Your task to perform on an android device: Add macbook pro to the cart on target, then select checkout. Image 0: 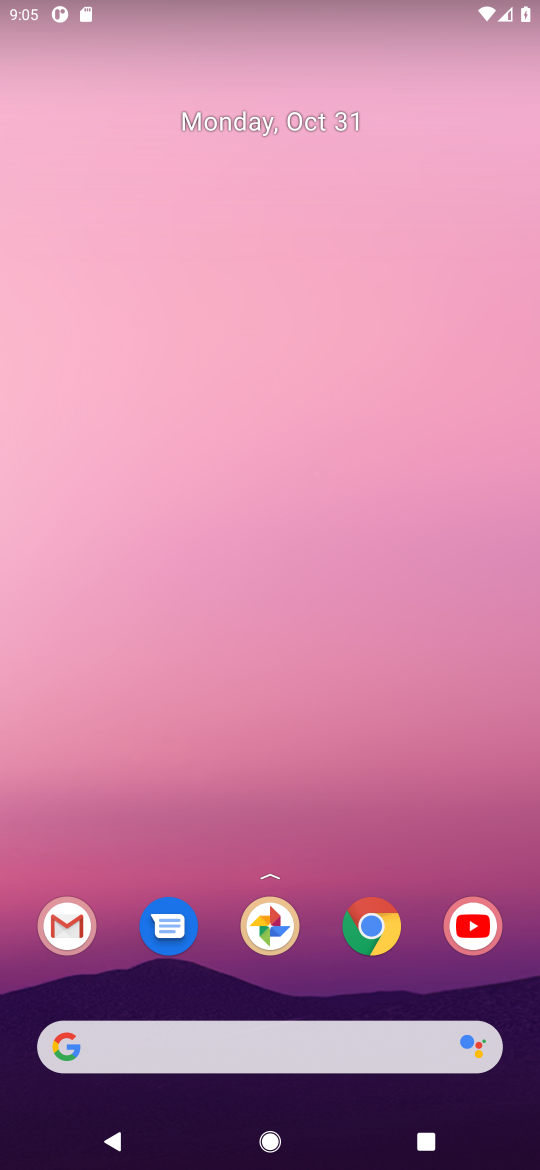
Step 0: click (374, 932)
Your task to perform on an android device: Add macbook pro to the cart on target, then select checkout. Image 1: 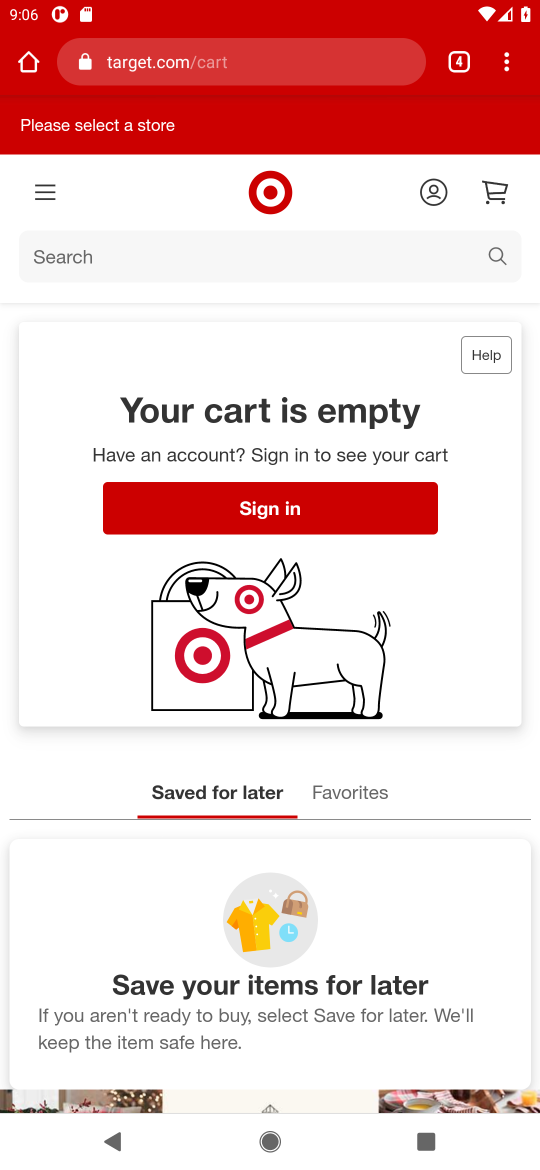
Step 1: click (76, 269)
Your task to perform on an android device: Add macbook pro to the cart on target, then select checkout. Image 2: 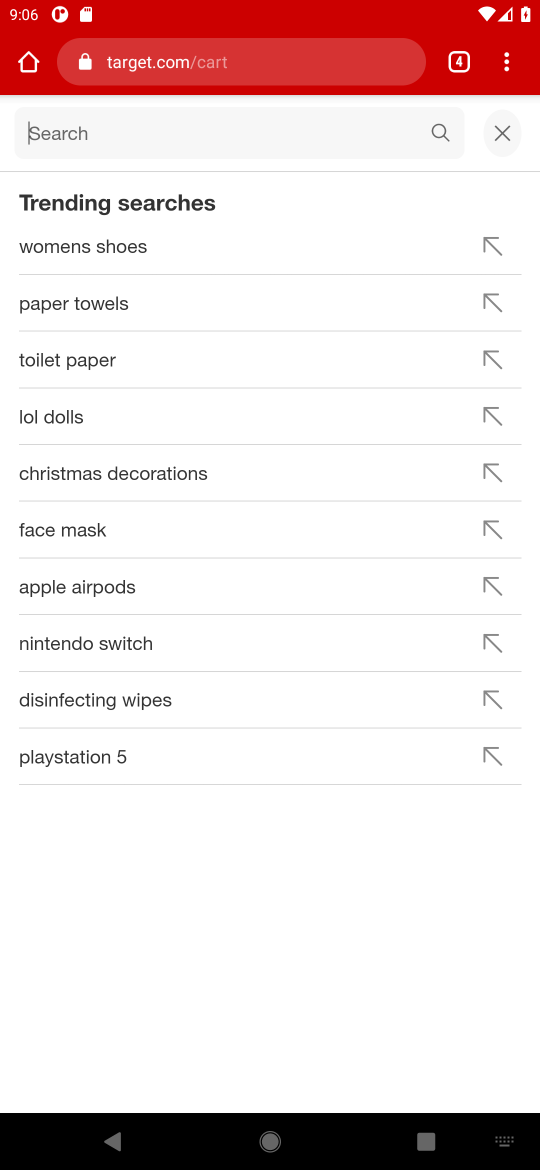
Step 2: type "macbook pro"
Your task to perform on an android device: Add macbook pro to the cart on target, then select checkout. Image 3: 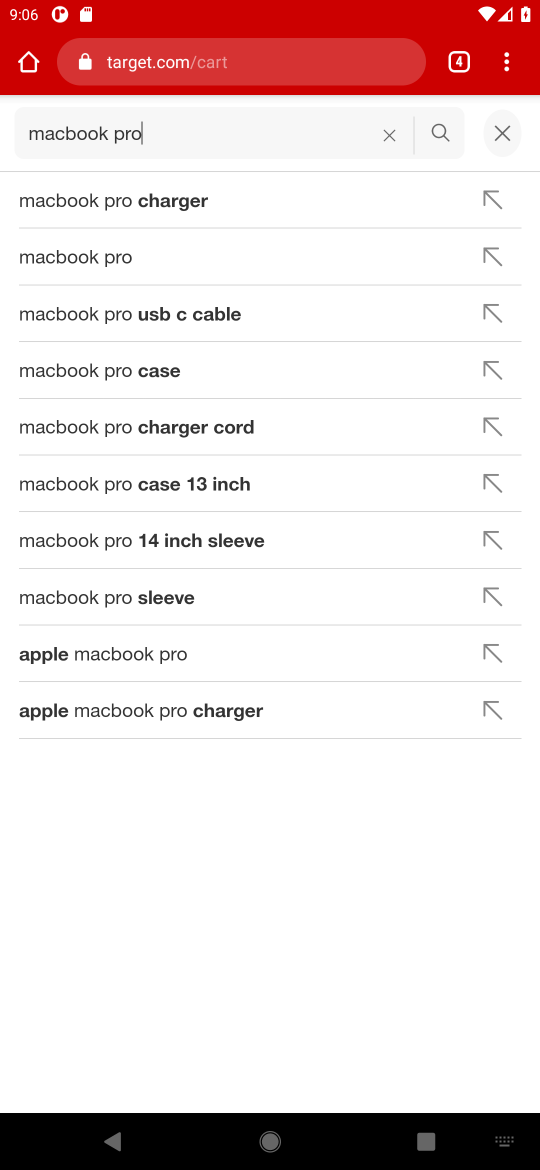
Step 3: click (103, 252)
Your task to perform on an android device: Add macbook pro to the cart on target, then select checkout. Image 4: 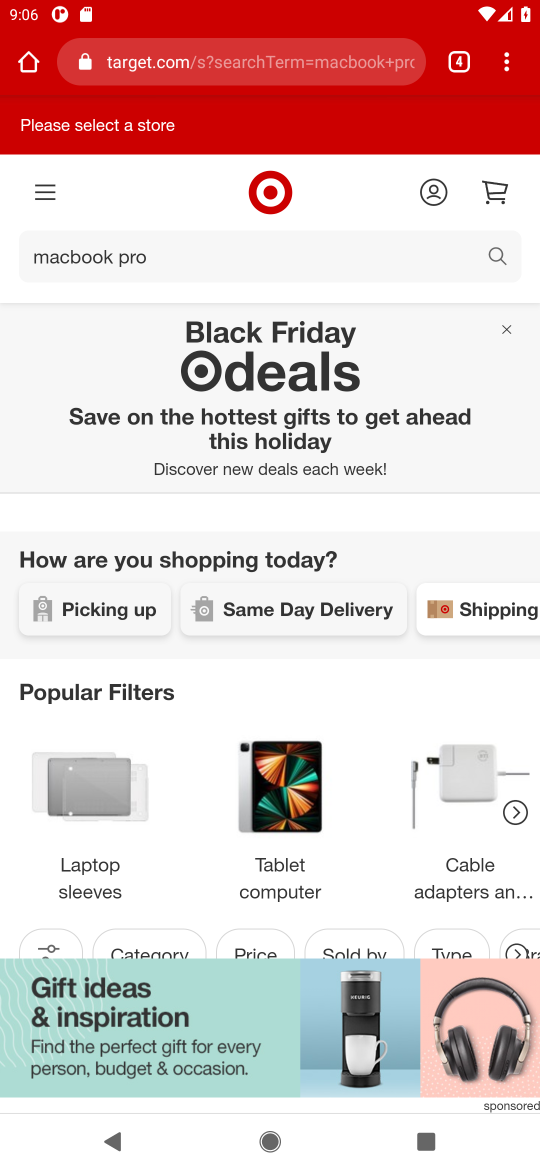
Step 4: drag from (225, 976) to (267, 293)
Your task to perform on an android device: Add macbook pro to the cart on target, then select checkout. Image 5: 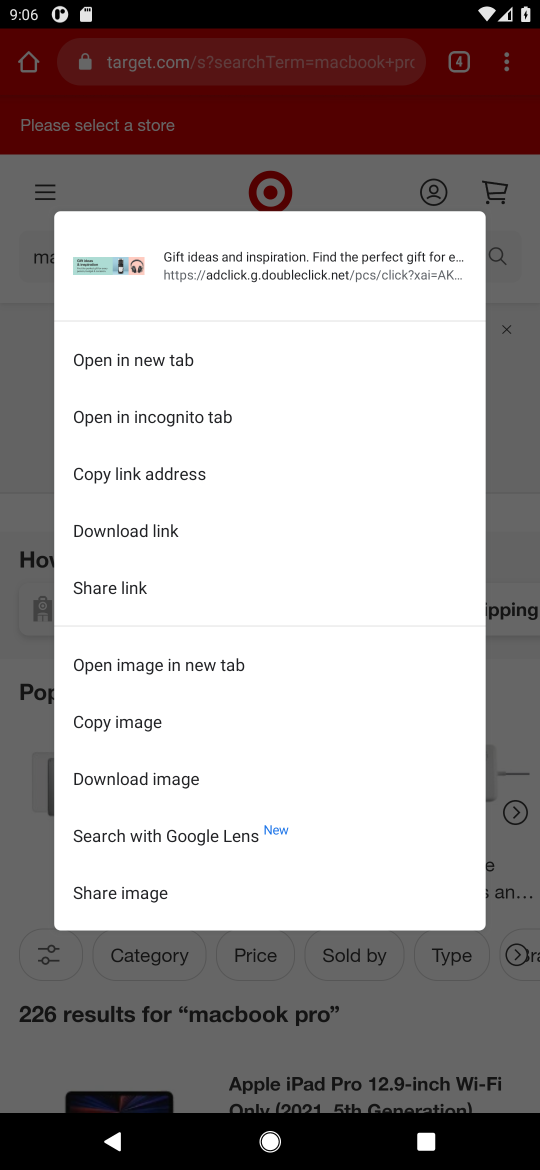
Step 5: click (519, 392)
Your task to perform on an android device: Add macbook pro to the cart on target, then select checkout. Image 6: 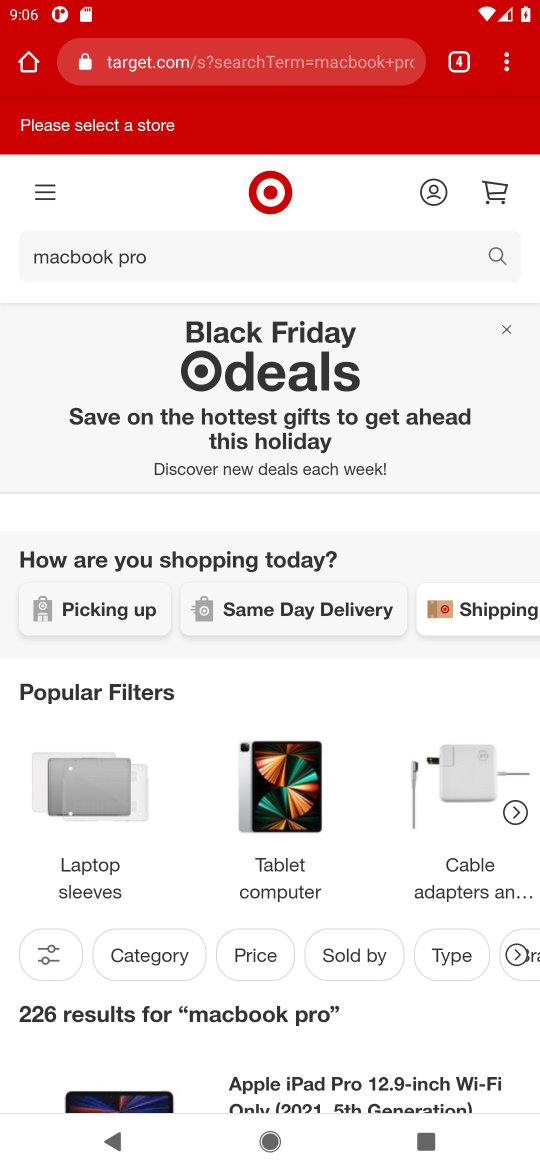
Step 6: drag from (128, 920) to (165, 329)
Your task to perform on an android device: Add macbook pro to the cart on target, then select checkout. Image 7: 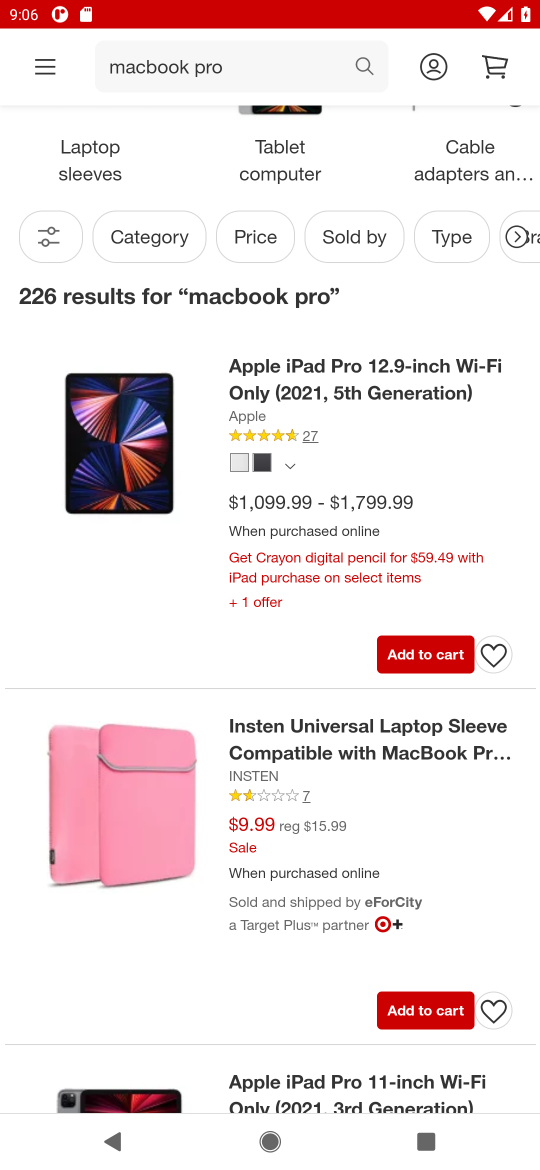
Step 7: click (407, 663)
Your task to perform on an android device: Add macbook pro to the cart on target, then select checkout. Image 8: 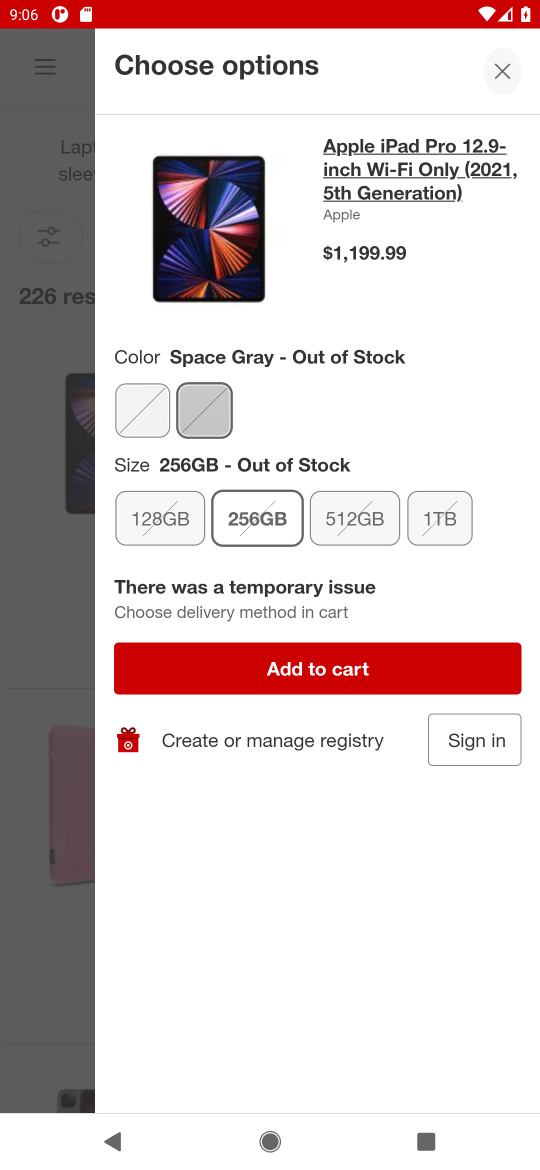
Step 8: click (346, 680)
Your task to perform on an android device: Add macbook pro to the cart on target, then select checkout. Image 9: 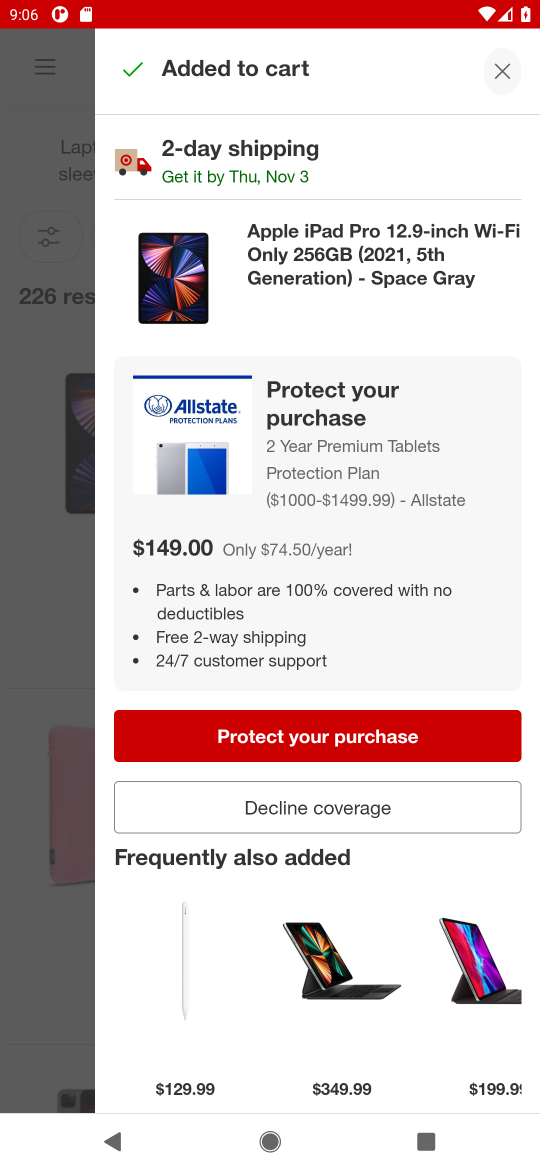
Step 9: click (343, 810)
Your task to perform on an android device: Add macbook pro to the cart on target, then select checkout. Image 10: 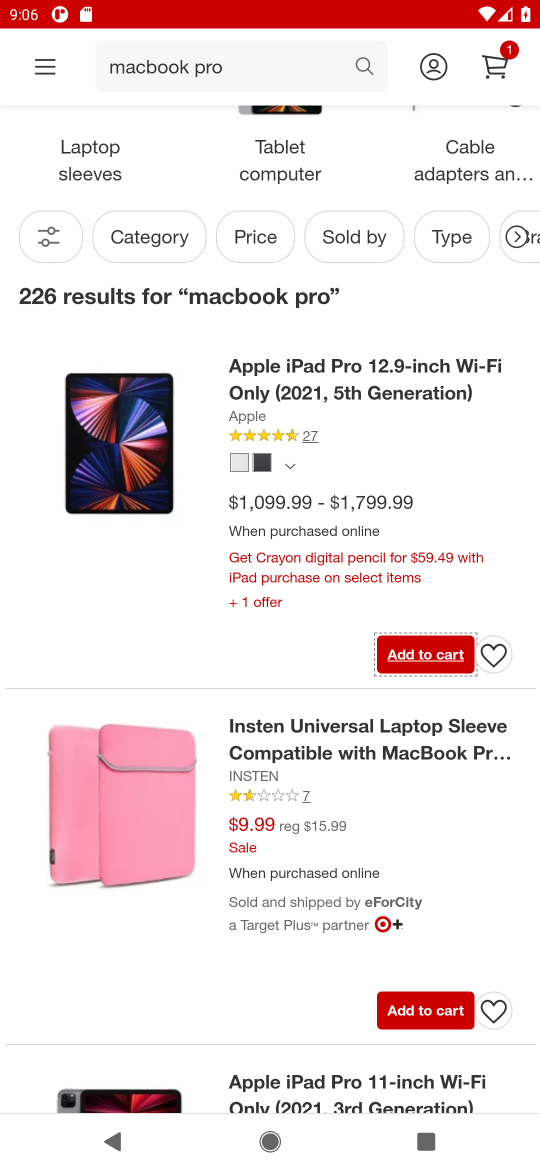
Step 10: click (496, 57)
Your task to perform on an android device: Add macbook pro to the cart on target, then select checkout. Image 11: 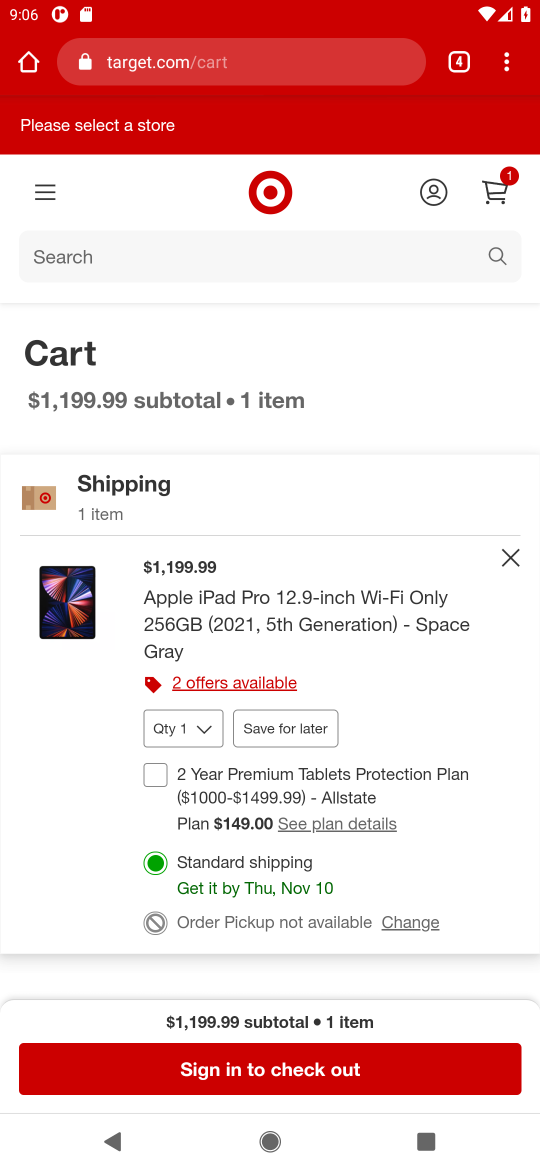
Step 11: click (301, 1070)
Your task to perform on an android device: Add macbook pro to the cart on target, then select checkout. Image 12: 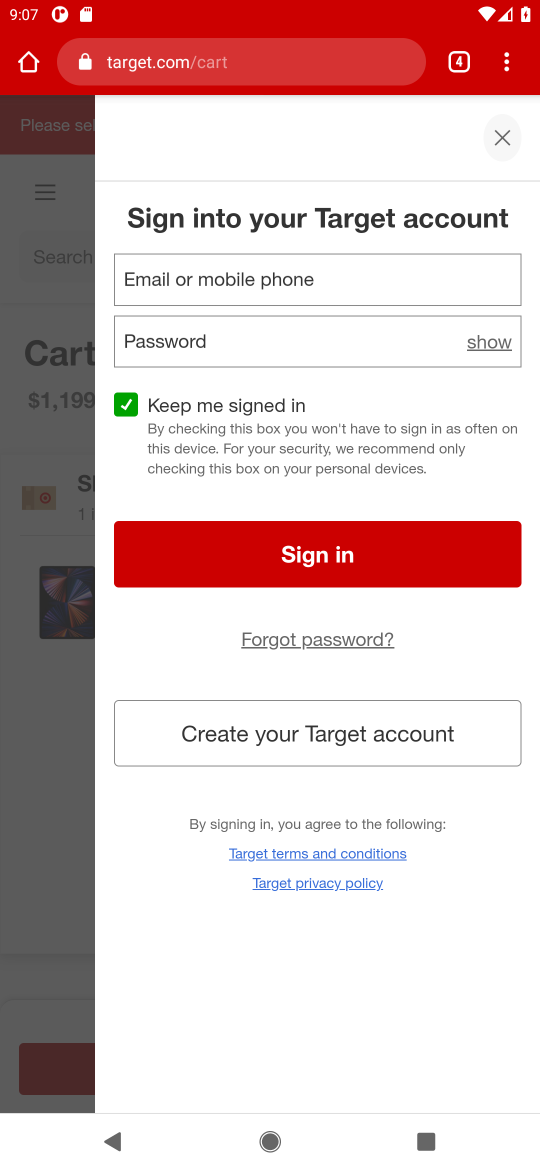
Step 12: task complete